Your task to perform on an android device: Go to sound settings Image 0: 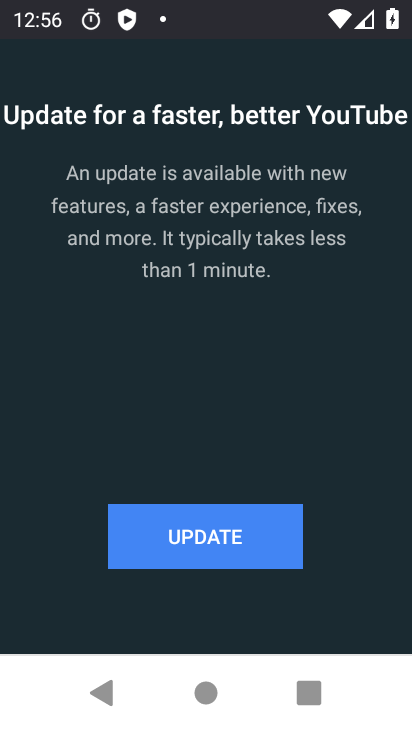
Step 0: press home button
Your task to perform on an android device: Go to sound settings Image 1: 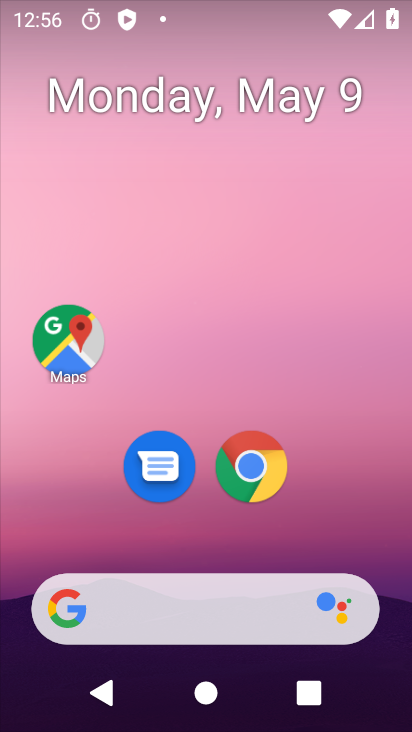
Step 1: drag from (245, 549) to (249, 126)
Your task to perform on an android device: Go to sound settings Image 2: 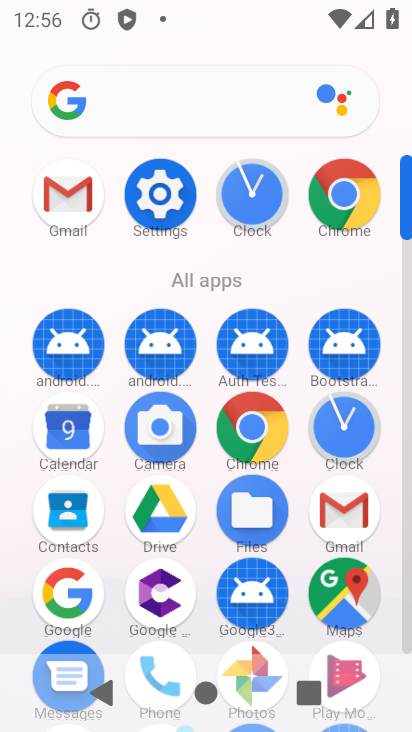
Step 2: drag from (246, 456) to (259, 275)
Your task to perform on an android device: Go to sound settings Image 3: 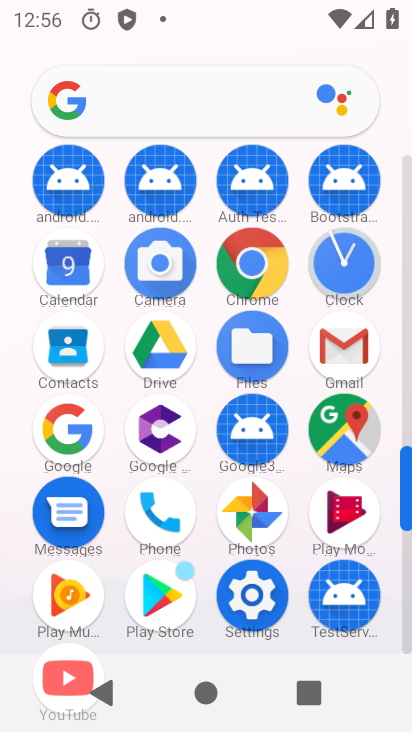
Step 3: drag from (259, 274) to (176, 565)
Your task to perform on an android device: Go to sound settings Image 4: 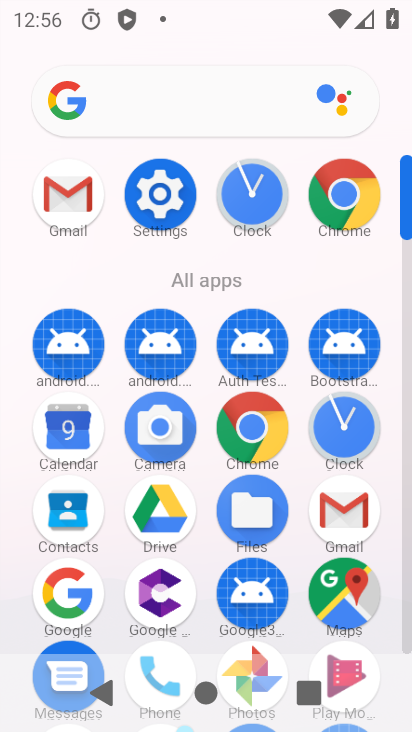
Step 4: click (172, 187)
Your task to perform on an android device: Go to sound settings Image 5: 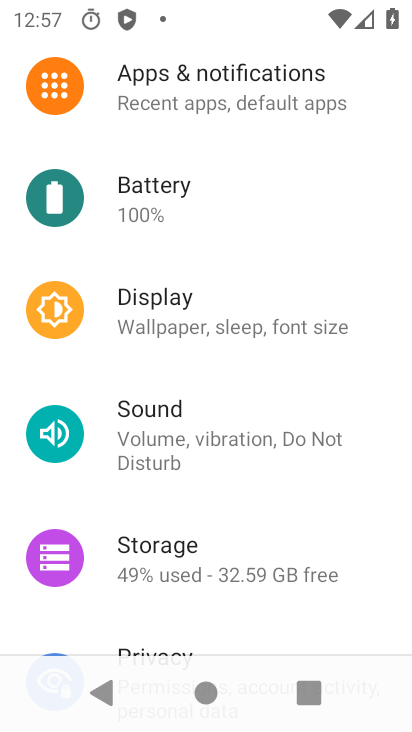
Step 5: click (171, 430)
Your task to perform on an android device: Go to sound settings Image 6: 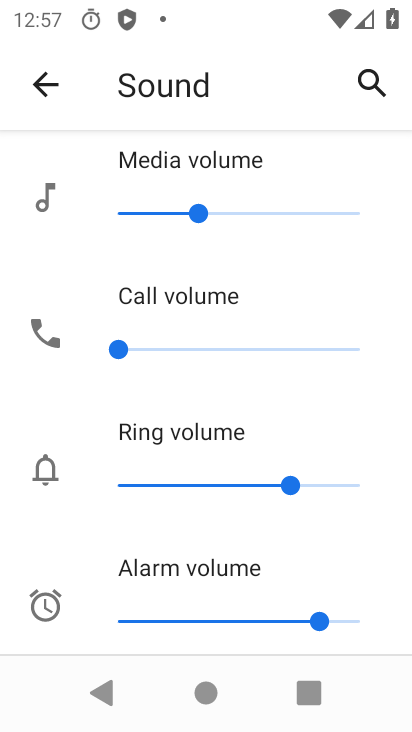
Step 6: task complete